Your task to perform on an android device: allow notifications from all sites in the chrome app Image 0: 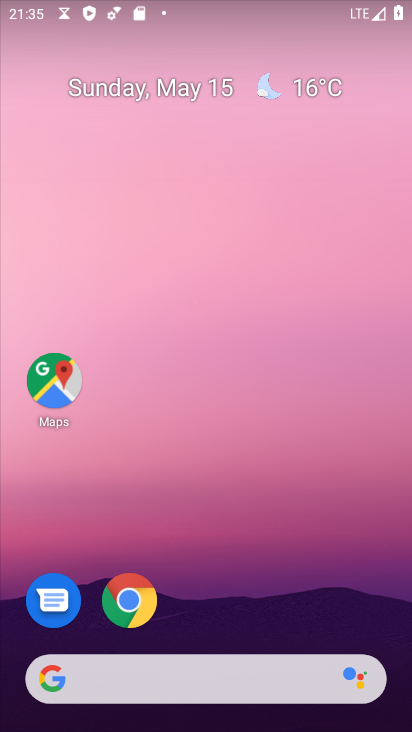
Step 0: click (123, 609)
Your task to perform on an android device: allow notifications from all sites in the chrome app Image 1: 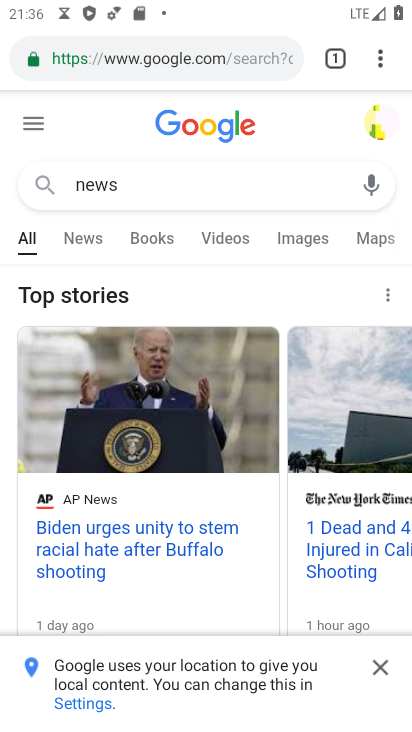
Step 1: click (367, 58)
Your task to perform on an android device: allow notifications from all sites in the chrome app Image 2: 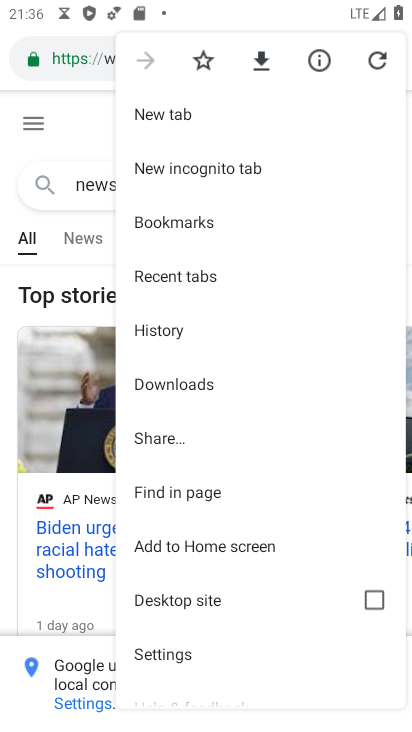
Step 2: click (247, 655)
Your task to perform on an android device: allow notifications from all sites in the chrome app Image 3: 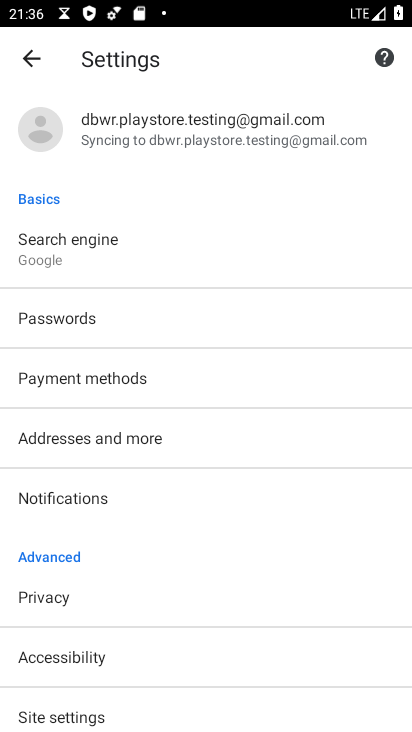
Step 3: click (199, 509)
Your task to perform on an android device: allow notifications from all sites in the chrome app Image 4: 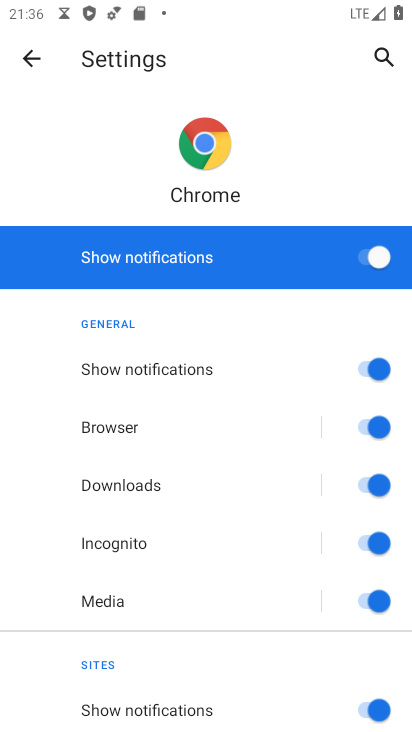
Step 4: task complete